Your task to perform on an android device: Go to Maps Image 0: 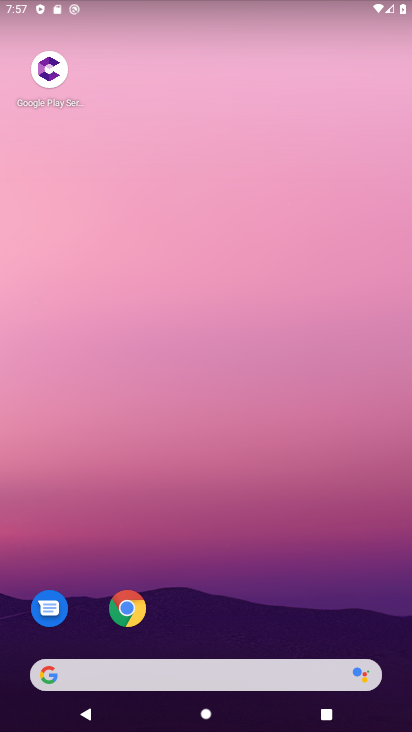
Step 0: drag from (210, 626) to (376, 6)
Your task to perform on an android device: Go to Maps Image 1: 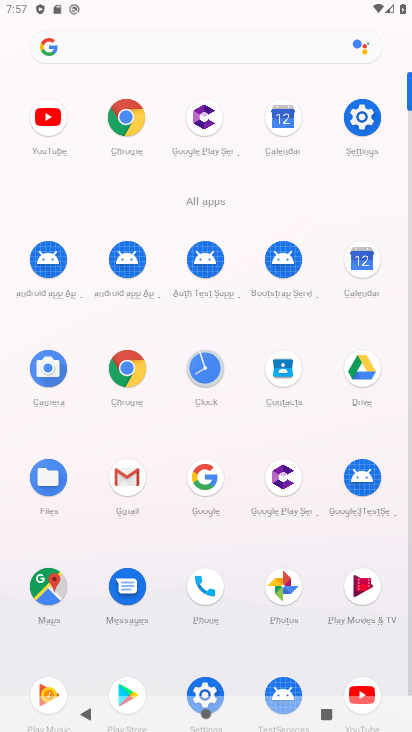
Step 1: click (40, 598)
Your task to perform on an android device: Go to Maps Image 2: 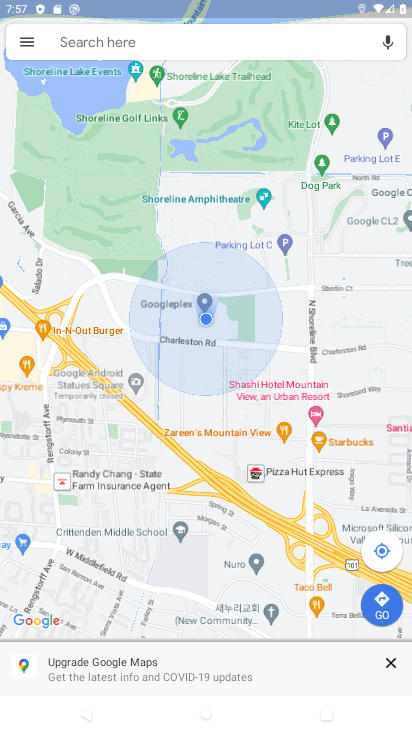
Step 2: task complete